Your task to perform on an android device: Show me productivity apps on the Play Store Image 0: 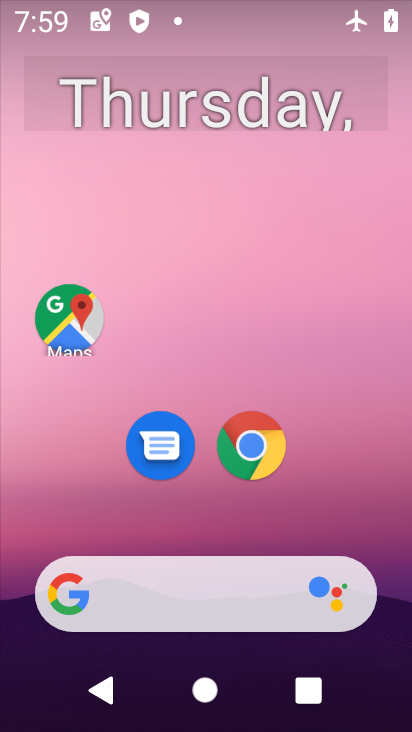
Step 0: drag from (331, 263) to (256, 111)
Your task to perform on an android device: Show me productivity apps on the Play Store Image 1: 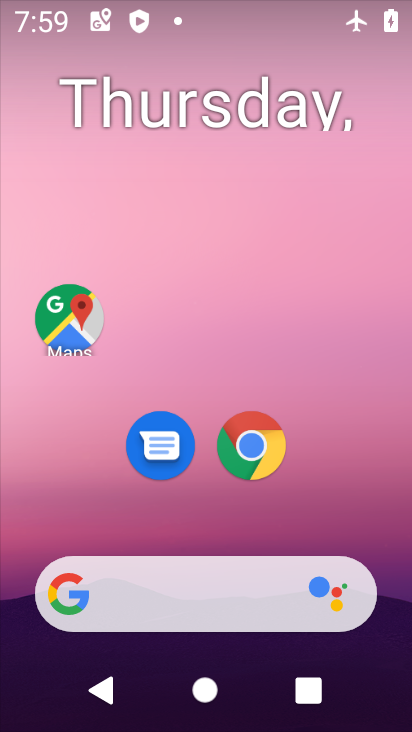
Step 1: drag from (383, 617) to (214, 23)
Your task to perform on an android device: Show me productivity apps on the Play Store Image 2: 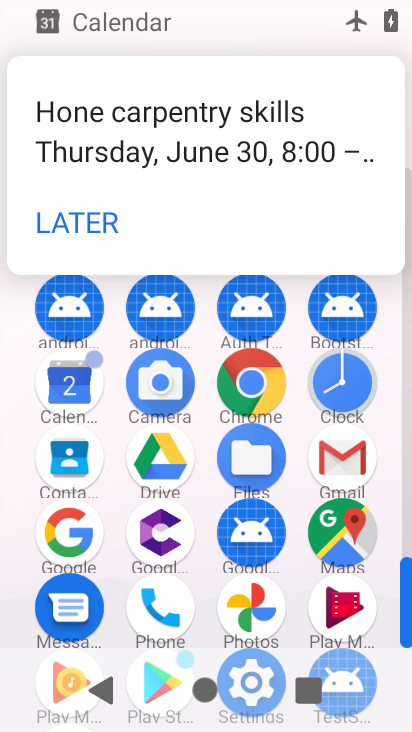
Step 2: click (68, 228)
Your task to perform on an android device: Show me productivity apps on the Play Store Image 3: 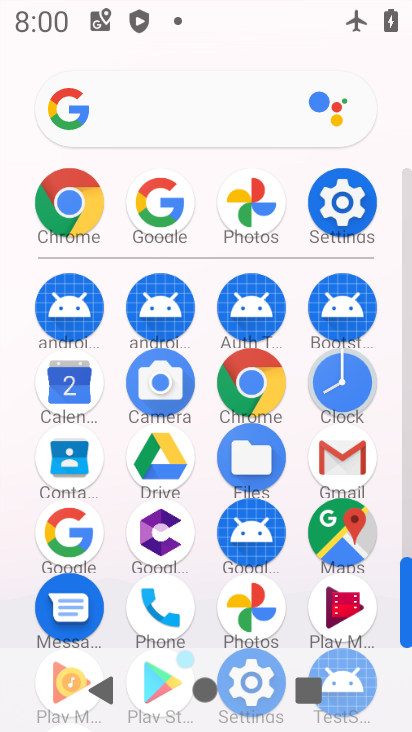
Step 3: drag from (210, 636) to (177, 201)
Your task to perform on an android device: Show me productivity apps on the Play Store Image 4: 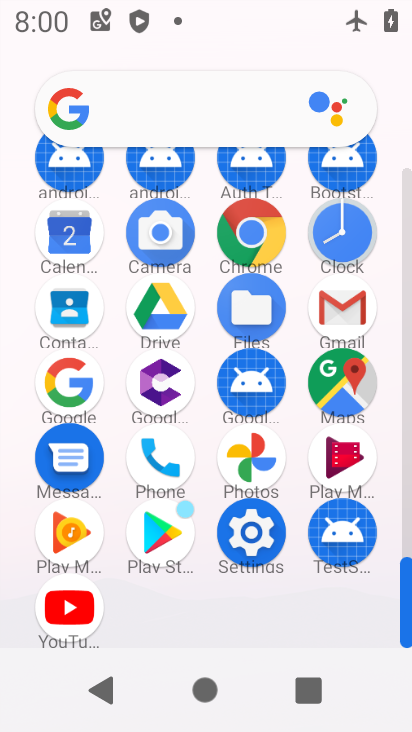
Step 4: click (167, 523)
Your task to perform on an android device: Show me productivity apps on the Play Store Image 5: 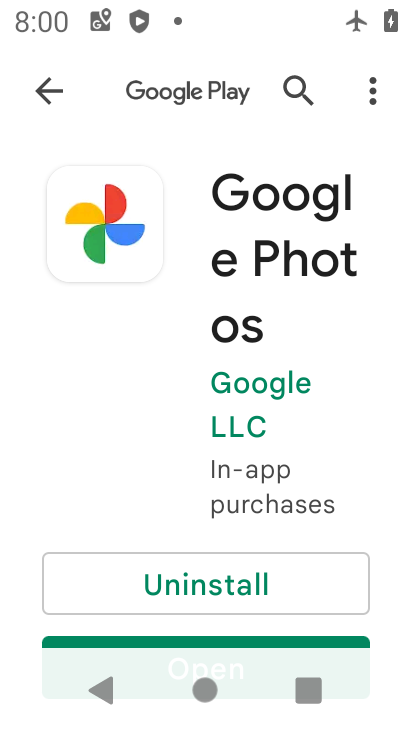
Step 5: press back button
Your task to perform on an android device: Show me productivity apps on the Play Store Image 6: 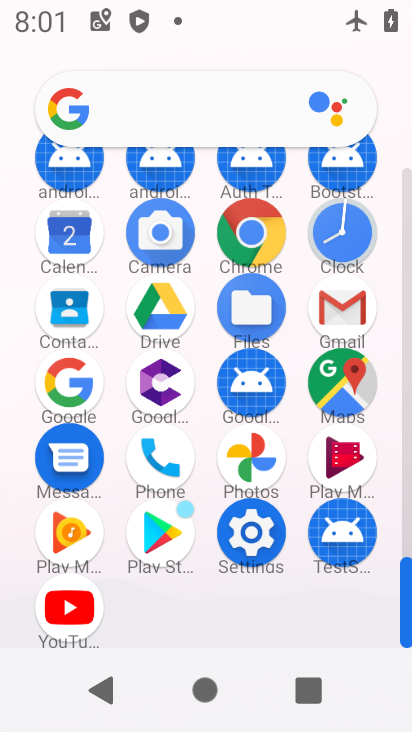
Step 6: click (162, 518)
Your task to perform on an android device: Show me productivity apps on the Play Store Image 7: 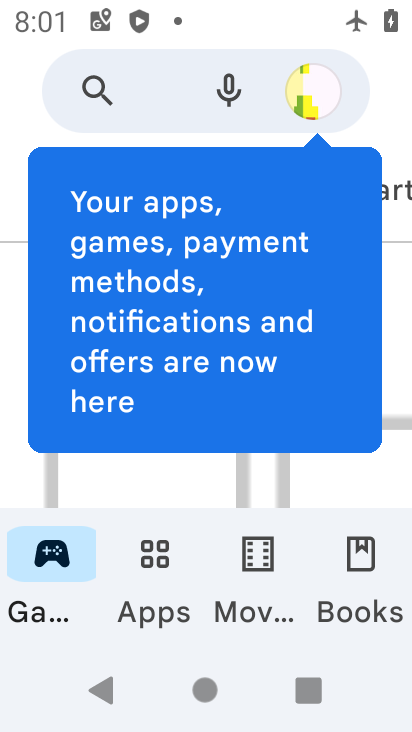
Step 7: click (175, 572)
Your task to perform on an android device: Show me productivity apps on the Play Store Image 8: 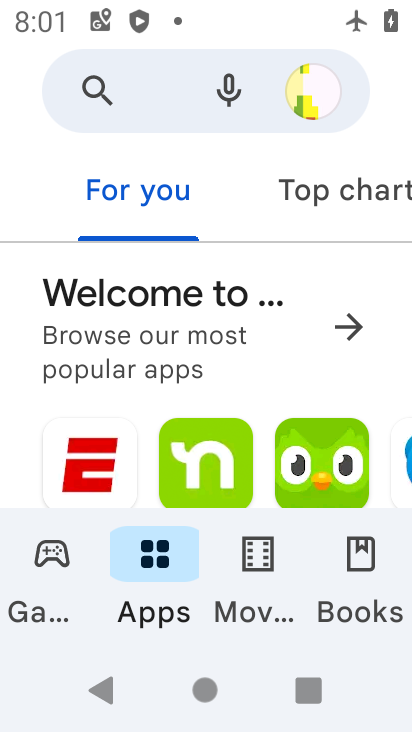
Step 8: task complete